Your task to perform on an android device: turn on wifi Image 0: 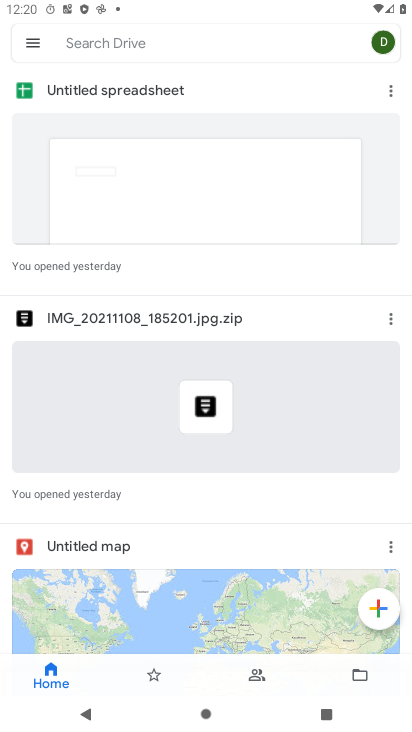
Step 0: press home button
Your task to perform on an android device: turn on wifi Image 1: 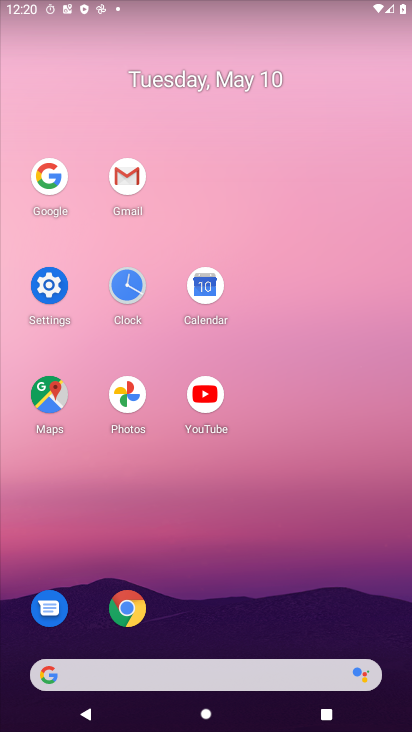
Step 1: click (40, 288)
Your task to perform on an android device: turn on wifi Image 2: 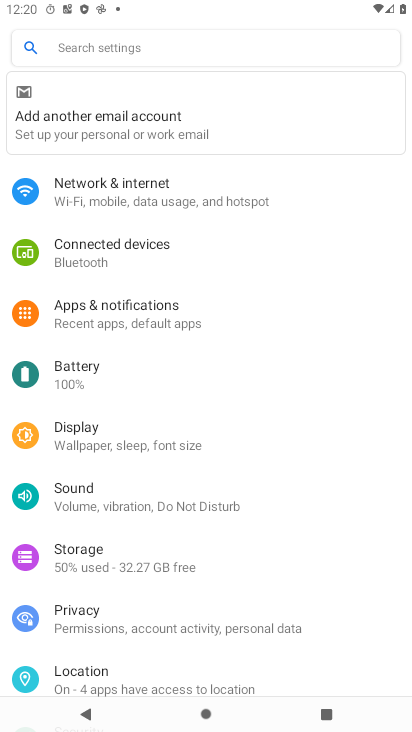
Step 2: click (140, 214)
Your task to perform on an android device: turn on wifi Image 3: 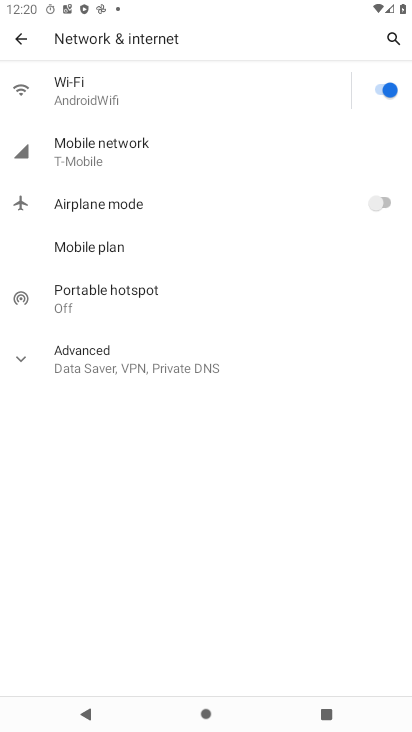
Step 3: task complete